Your task to perform on an android device: Open maps Image 0: 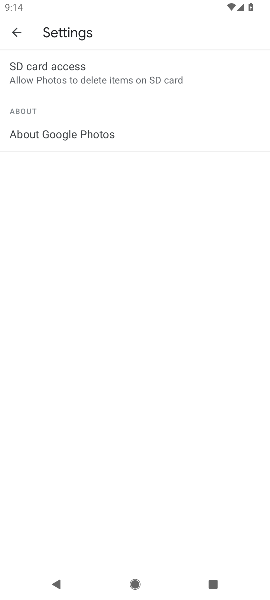
Step 0: press home button
Your task to perform on an android device: Open maps Image 1: 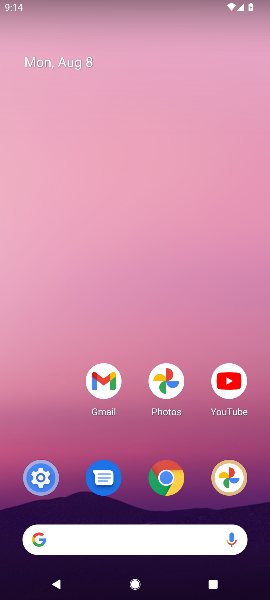
Step 1: drag from (135, 541) to (240, 232)
Your task to perform on an android device: Open maps Image 2: 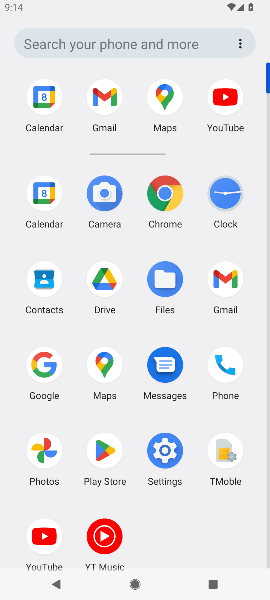
Step 2: click (163, 95)
Your task to perform on an android device: Open maps Image 3: 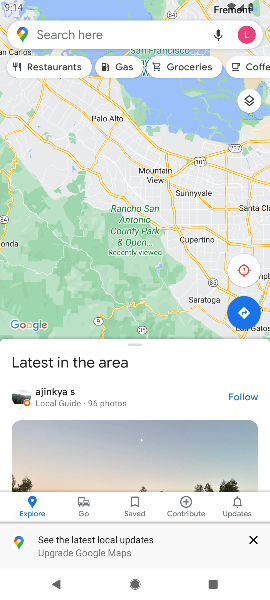
Step 3: task complete